Your task to perform on an android device: Open Google Maps Image 0: 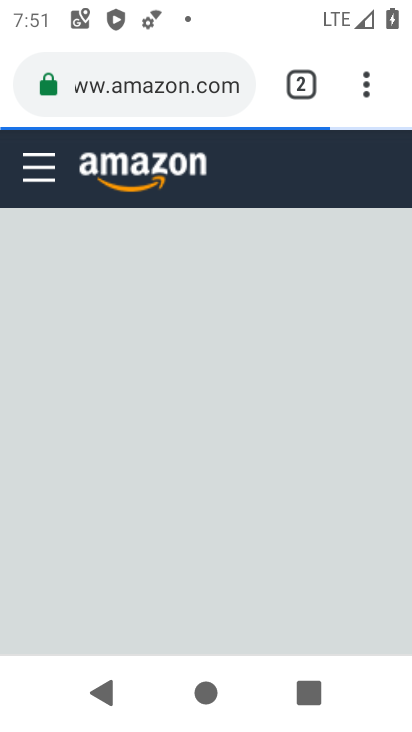
Step 0: press home button
Your task to perform on an android device: Open Google Maps Image 1: 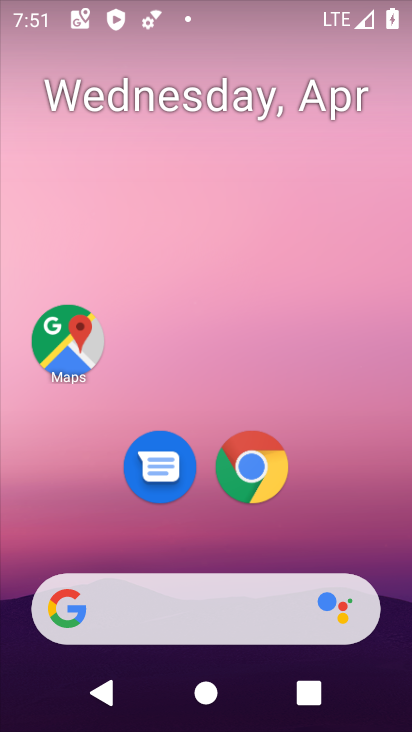
Step 1: click (56, 345)
Your task to perform on an android device: Open Google Maps Image 2: 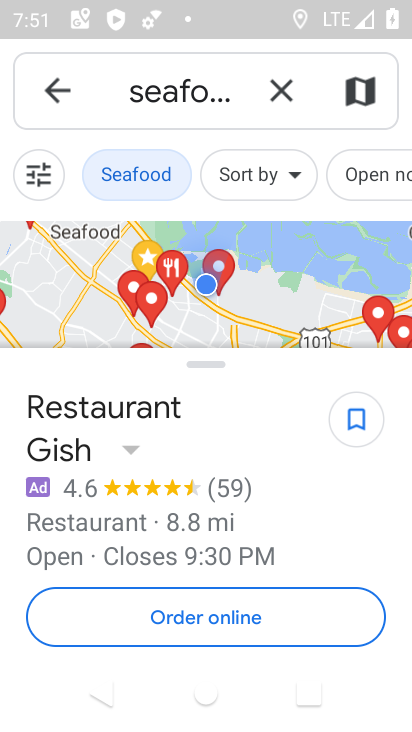
Step 2: task complete